Your task to perform on an android device: see tabs open on other devices in the chrome app Image 0: 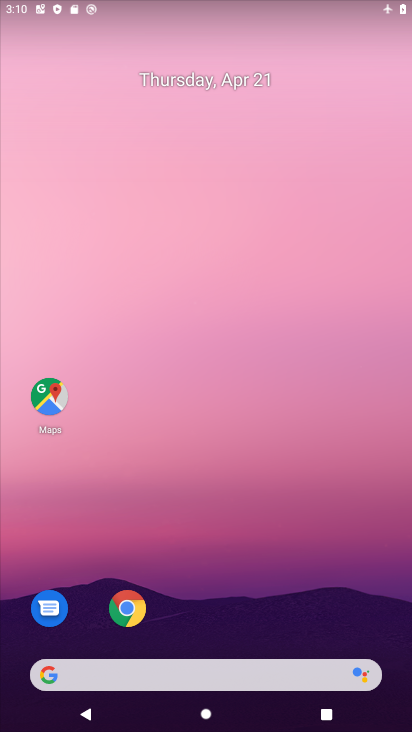
Step 0: click (127, 623)
Your task to perform on an android device: see tabs open on other devices in the chrome app Image 1: 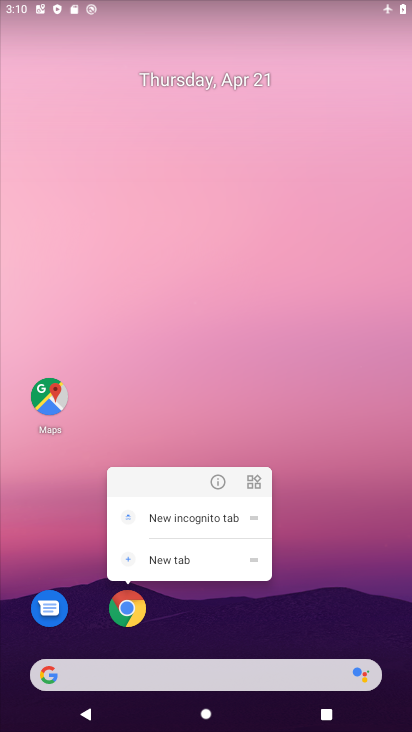
Step 1: click (129, 611)
Your task to perform on an android device: see tabs open on other devices in the chrome app Image 2: 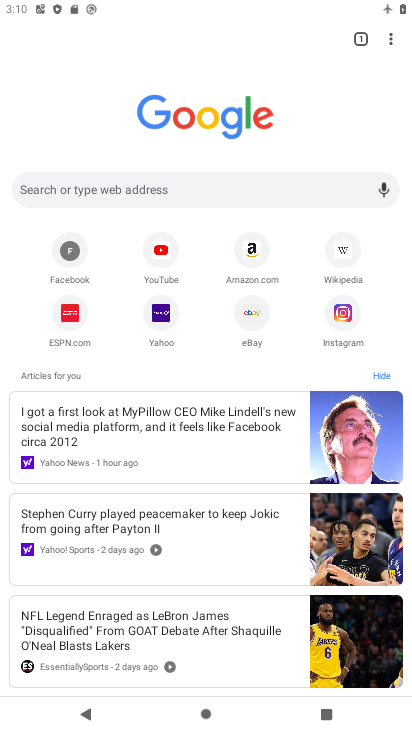
Step 2: click (395, 35)
Your task to perform on an android device: see tabs open on other devices in the chrome app Image 3: 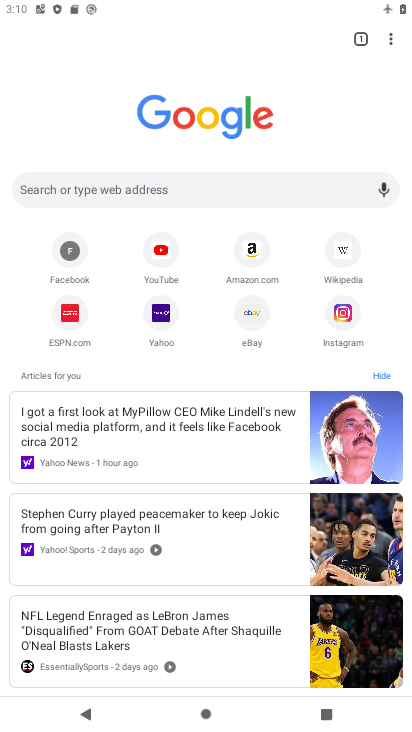
Step 3: click (391, 41)
Your task to perform on an android device: see tabs open on other devices in the chrome app Image 4: 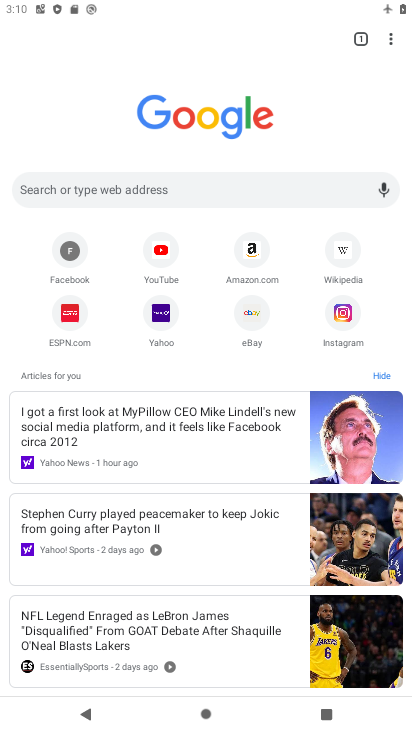
Step 4: click (391, 38)
Your task to perform on an android device: see tabs open on other devices in the chrome app Image 5: 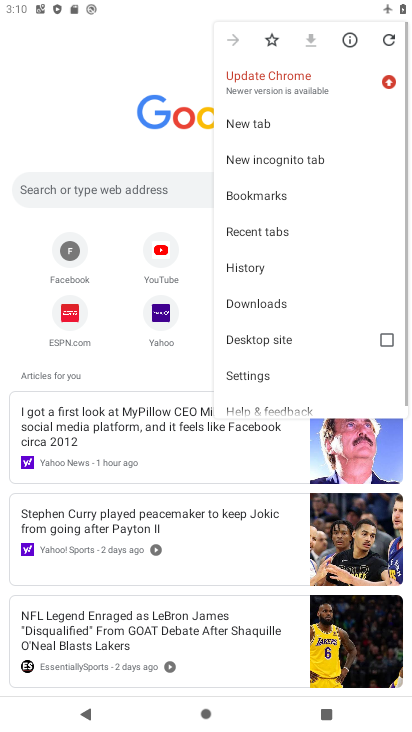
Step 5: click (271, 230)
Your task to perform on an android device: see tabs open on other devices in the chrome app Image 6: 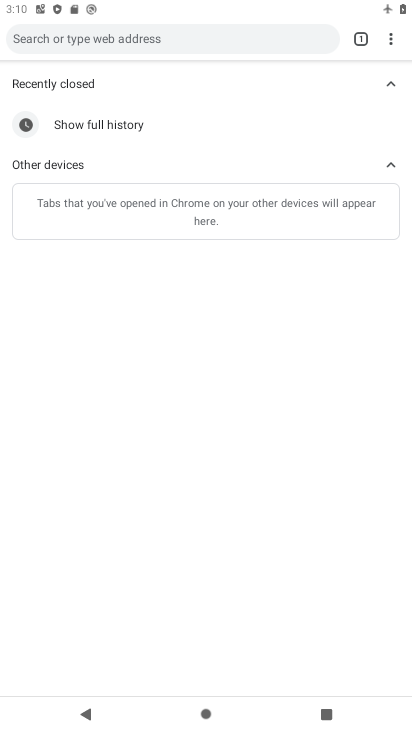
Step 6: task complete